Your task to perform on an android device: all mails in gmail Image 0: 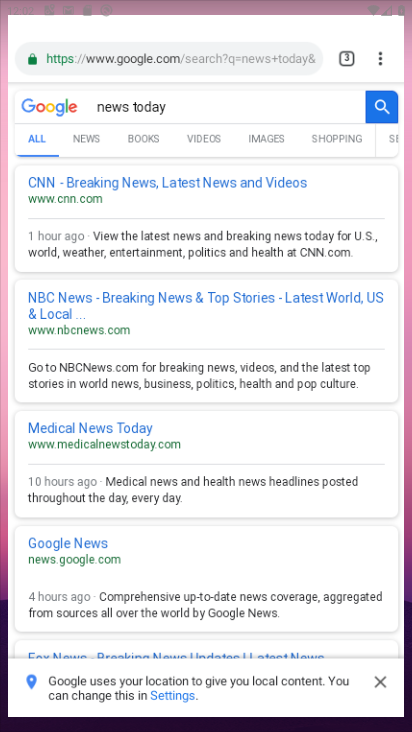
Step 0: drag from (264, 611) to (245, 4)
Your task to perform on an android device: all mails in gmail Image 1: 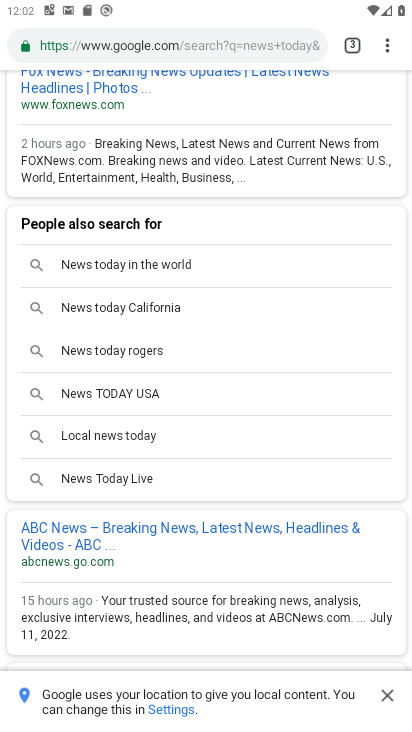
Step 1: press home button
Your task to perform on an android device: all mails in gmail Image 2: 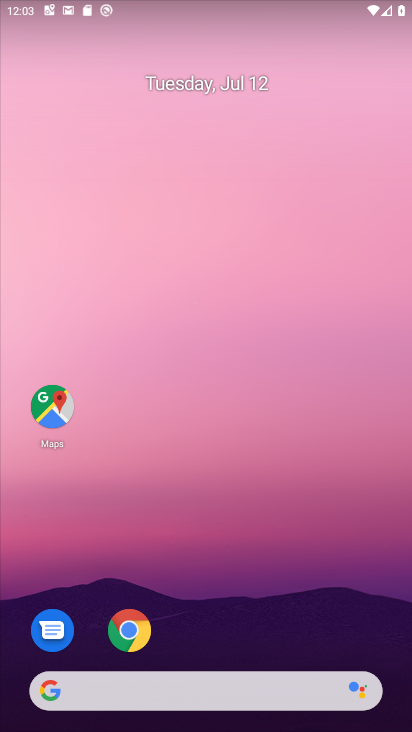
Step 2: drag from (249, 649) to (210, 111)
Your task to perform on an android device: all mails in gmail Image 3: 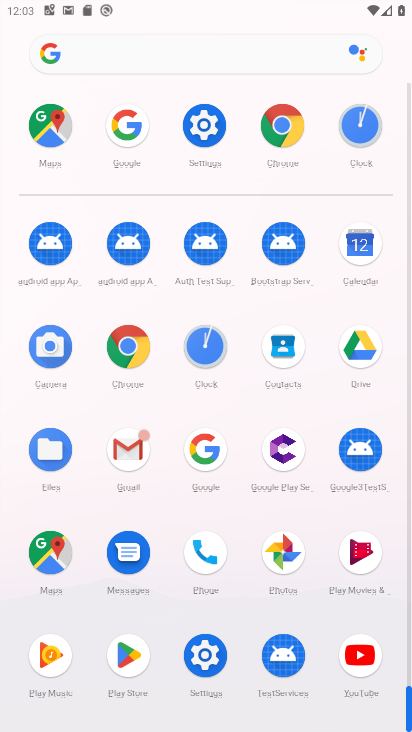
Step 3: click (131, 469)
Your task to perform on an android device: all mails in gmail Image 4: 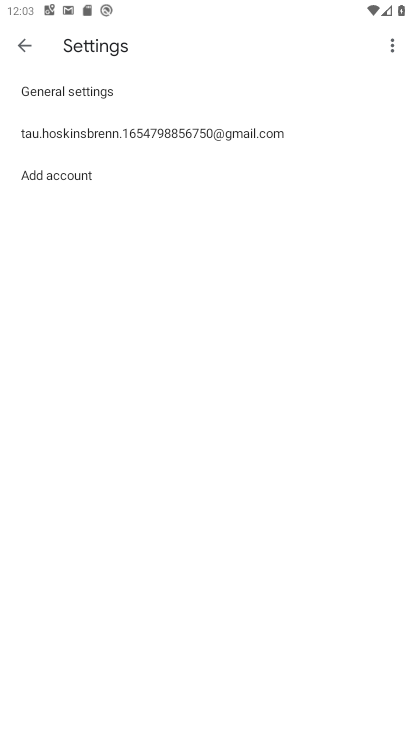
Step 4: click (23, 48)
Your task to perform on an android device: all mails in gmail Image 5: 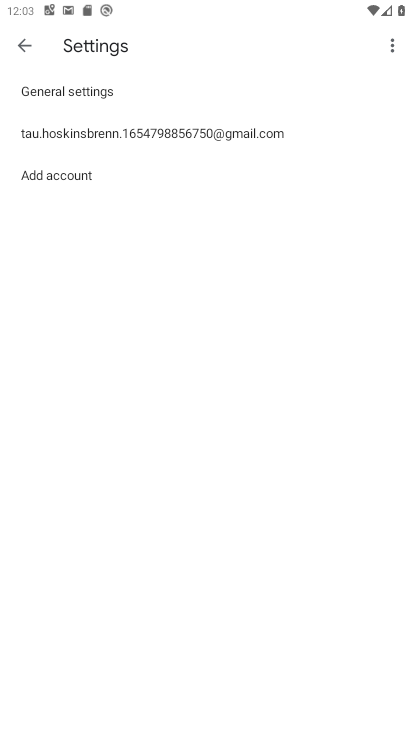
Step 5: click (23, 48)
Your task to perform on an android device: all mails in gmail Image 6: 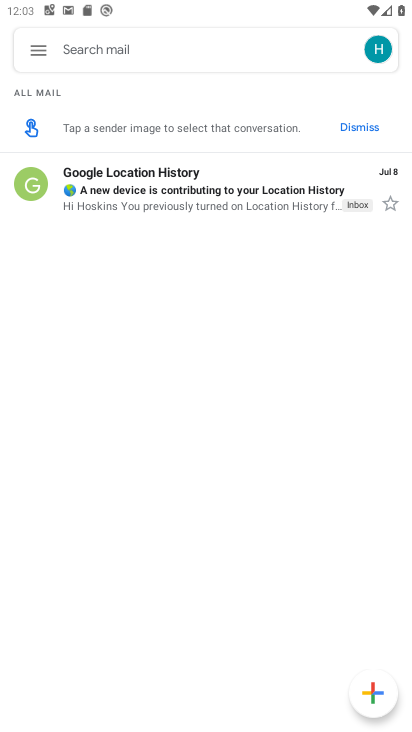
Step 6: click (51, 53)
Your task to perform on an android device: all mails in gmail Image 7: 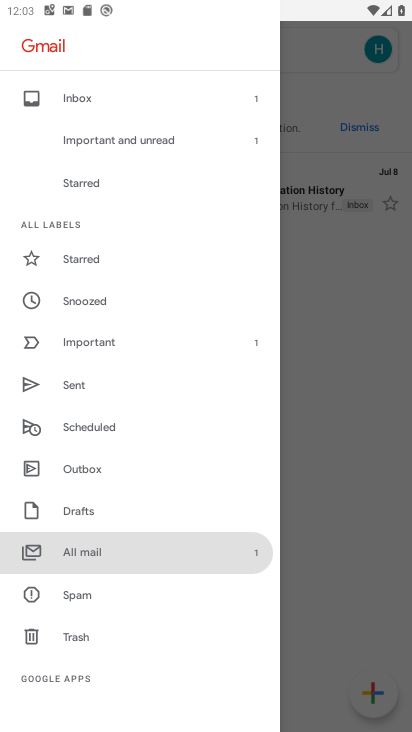
Step 7: click (111, 559)
Your task to perform on an android device: all mails in gmail Image 8: 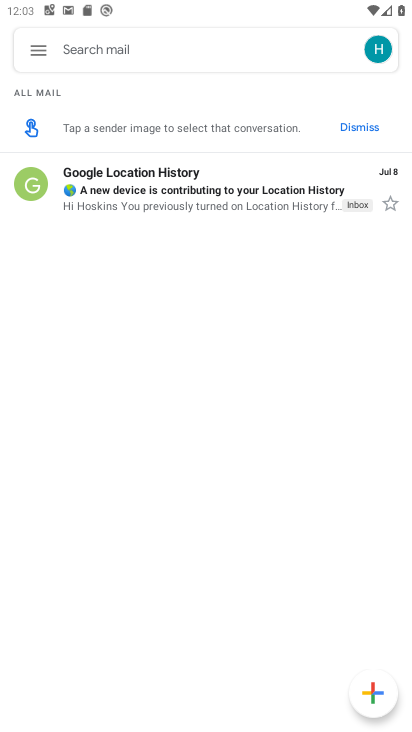
Step 8: task complete